Your task to perform on an android device: move a message to another label in the gmail app Image 0: 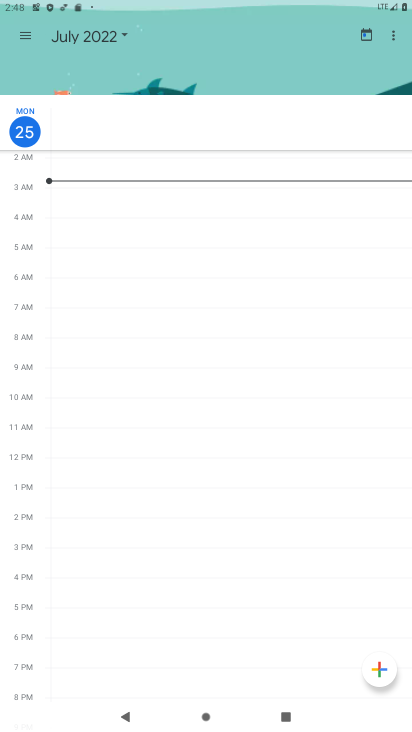
Step 0: click (361, 36)
Your task to perform on an android device: move a message to another label in the gmail app Image 1: 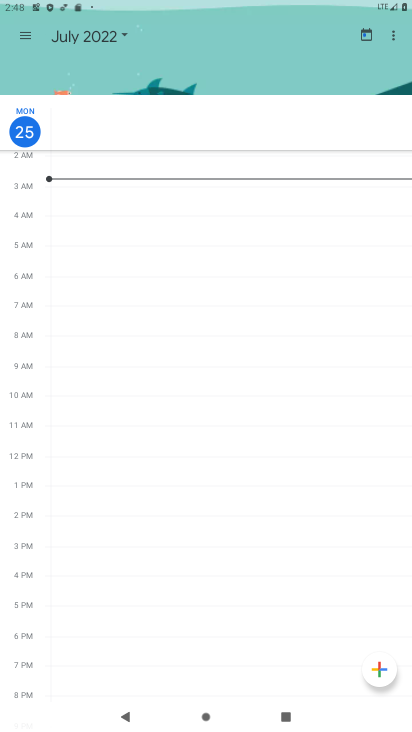
Step 1: click (123, 34)
Your task to perform on an android device: move a message to another label in the gmail app Image 2: 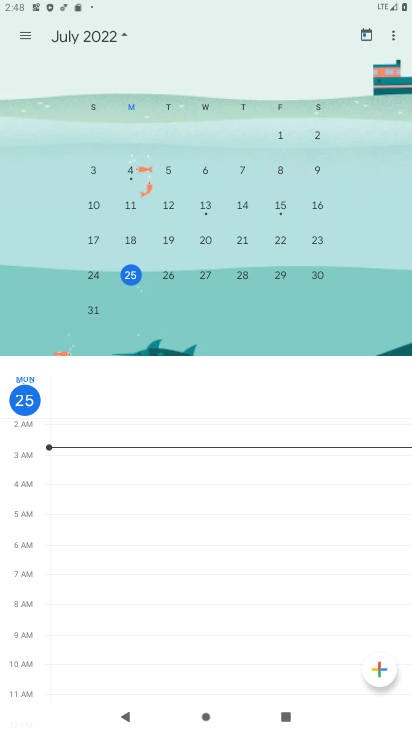
Step 2: press home button
Your task to perform on an android device: move a message to another label in the gmail app Image 3: 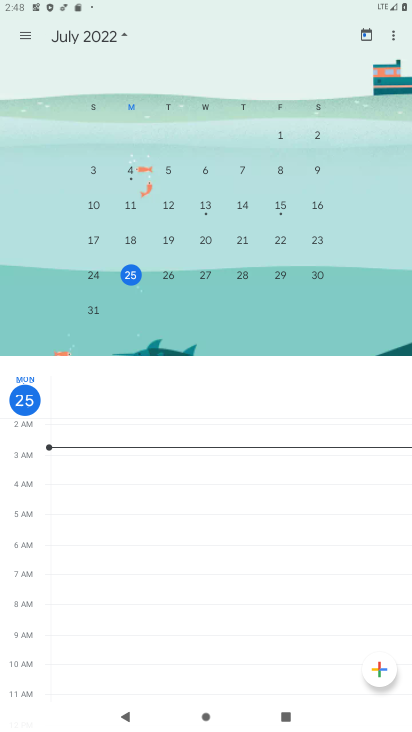
Step 3: press home button
Your task to perform on an android device: move a message to another label in the gmail app Image 4: 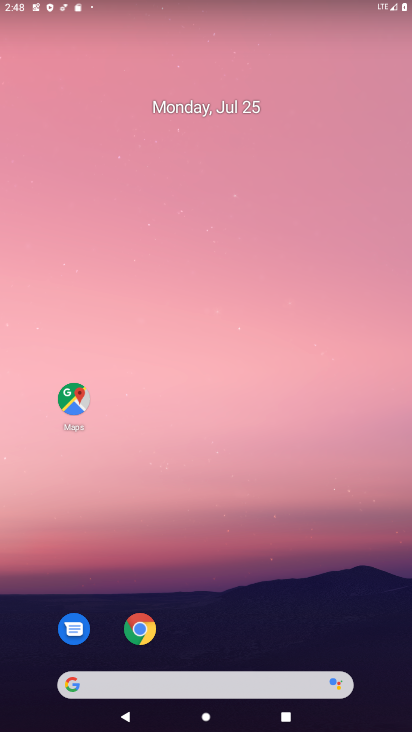
Step 4: drag from (175, 646) to (248, 43)
Your task to perform on an android device: move a message to another label in the gmail app Image 5: 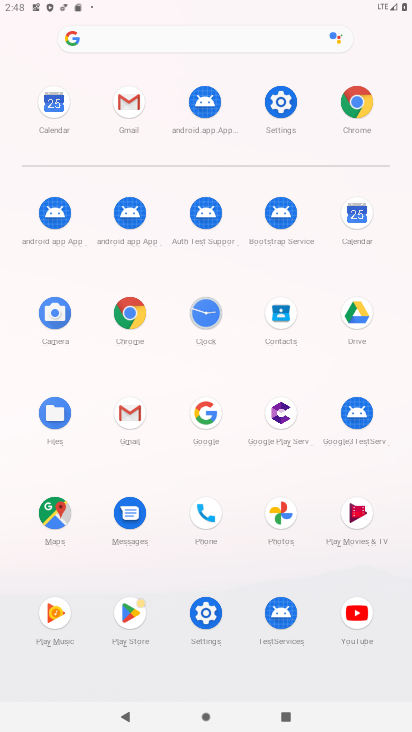
Step 5: click (120, 420)
Your task to perform on an android device: move a message to another label in the gmail app Image 6: 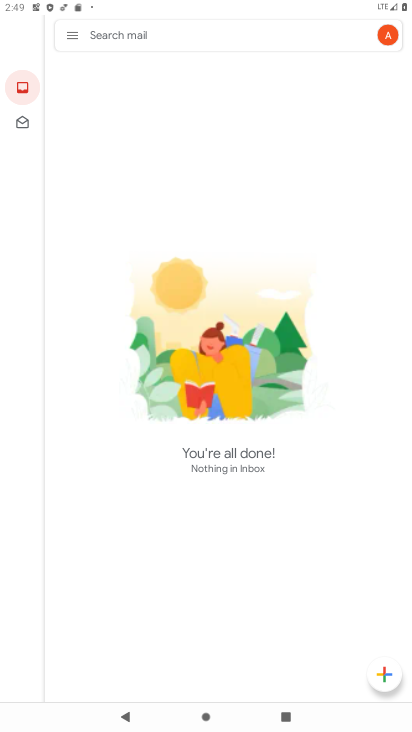
Step 6: task complete